Your task to perform on an android device: Open calendar and show me the first week of next month Image 0: 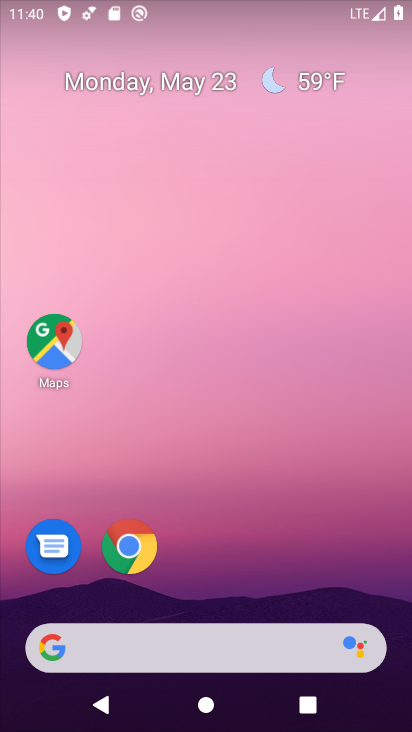
Step 0: drag from (207, 544) to (399, 488)
Your task to perform on an android device: Open calendar and show me the first week of next month Image 1: 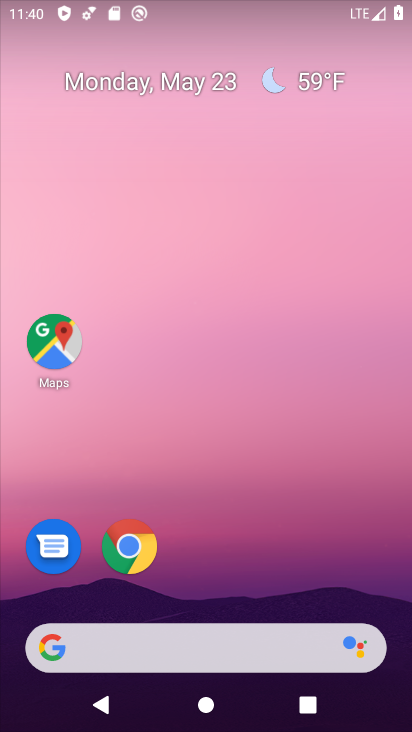
Step 1: drag from (204, 584) to (307, 3)
Your task to perform on an android device: Open calendar and show me the first week of next month Image 2: 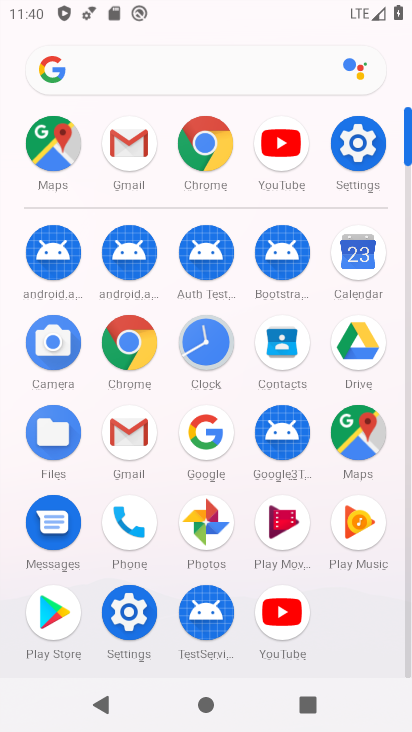
Step 2: click (347, 250)
Your task to perform on an android device: Open calendar and show me the first week of next month Image 3: 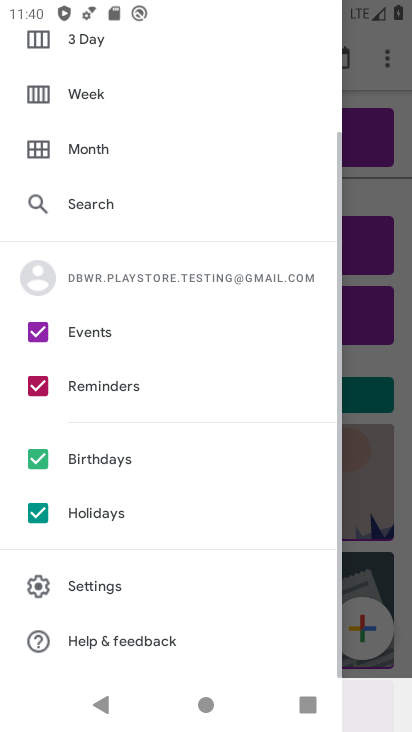
Step 3: drag from (177, 503) to (229, 218)
Your task to perform on an android device: Open calendar and show me the first week of next month Image 4: 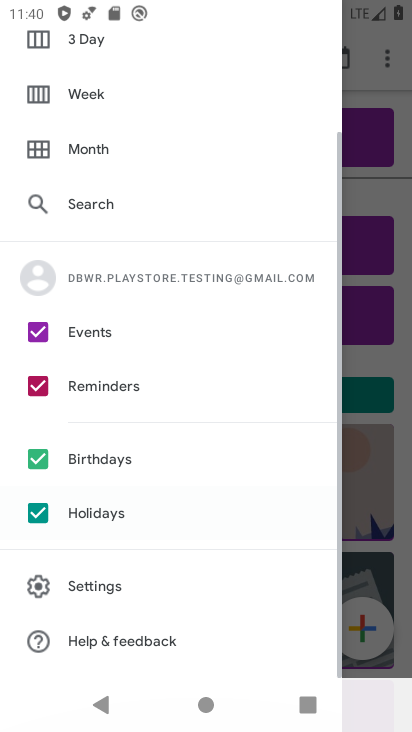
Step 4: drag from (235, 169) to (270, 721)
Your task to perform on an android device: Open calendar and show me the first week of next month Image 5: 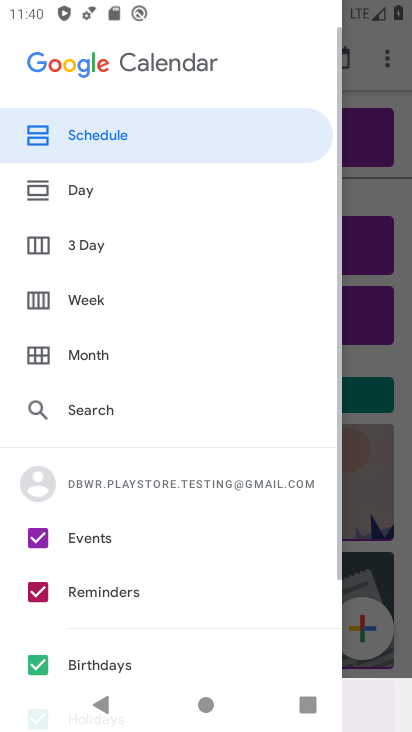
Step 5: click (91, 314)
Your task to perform on an android device: Open calendar and show me the first week of next month Image 6: 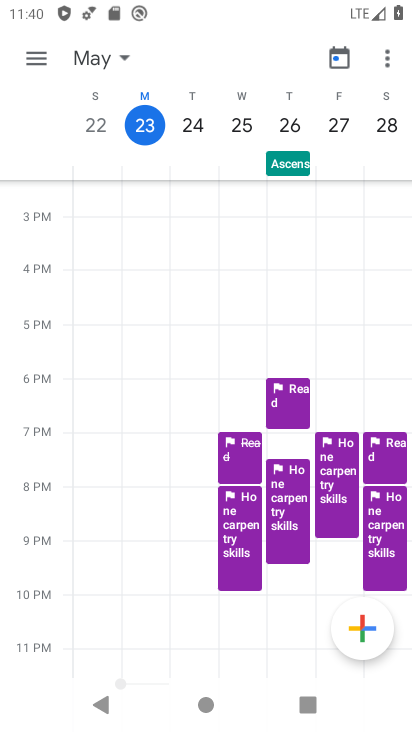
Step 6: click (113, 58)
Your task to perform on an android device: Open calendar and show me the first week of next month Image 7: 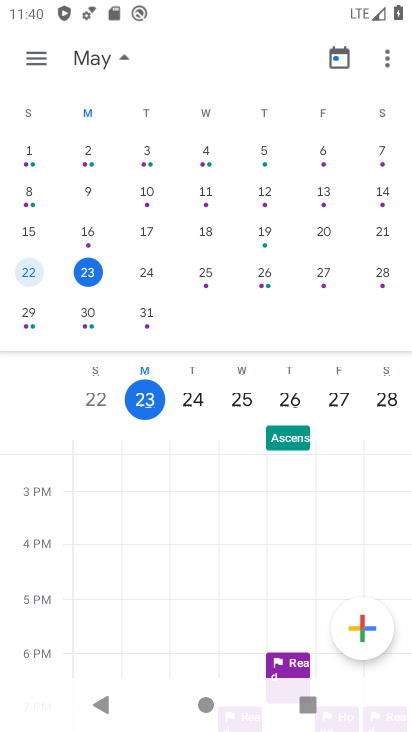
Step 7: drag from (325, 206) to (2, 137)
Your task to perform on an android device: Open calendar and show me the first week of next month Image 8: 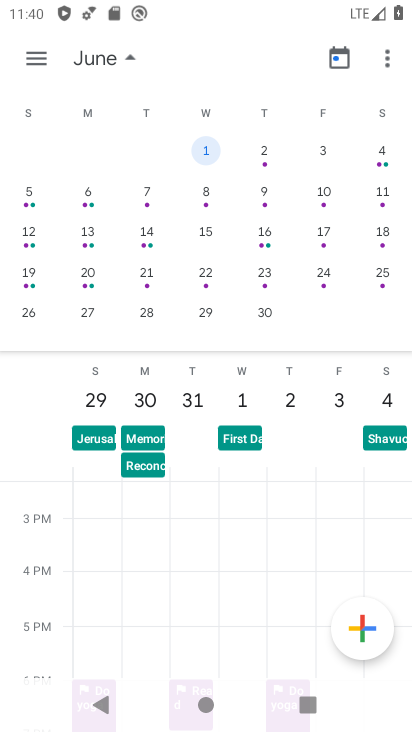
Step 8: click (263, 148)
Your task to perform on an android device: Open calendar and show me the first week of next month Image 9: 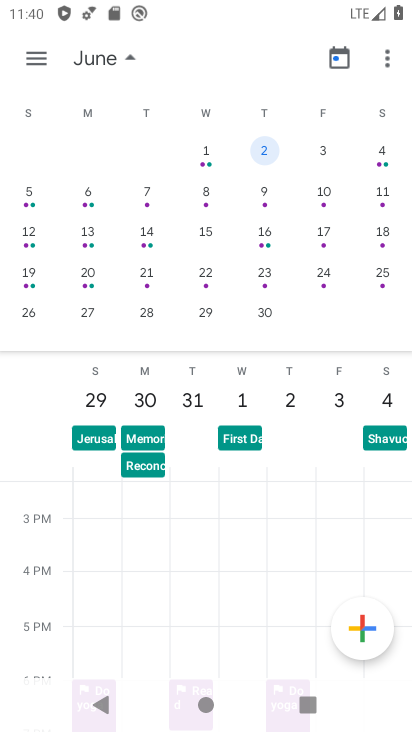
Step 9: task complete